Your task to perform on an android device: turn vacation reply on in the gmail app Image 0: 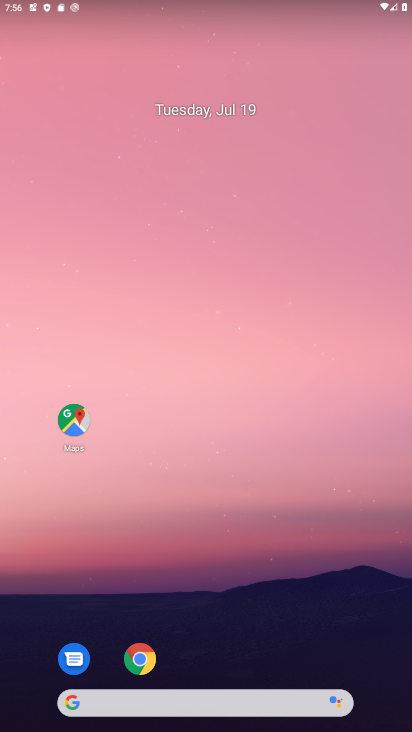
Step 0: drag from (221, 690) to (218, 274)
Your task to perform on an android device: turn vacation reply on in the gmail app Image 1: 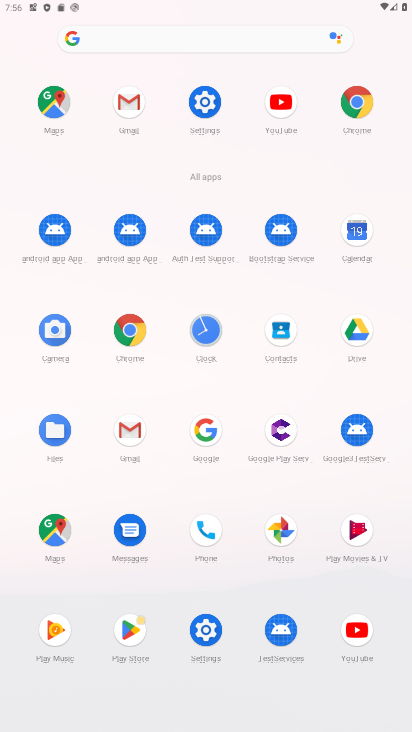
Step 1: click (135, 113)
Your task to perform on an android device: turn vacation reply on in the gmail app Image 2: 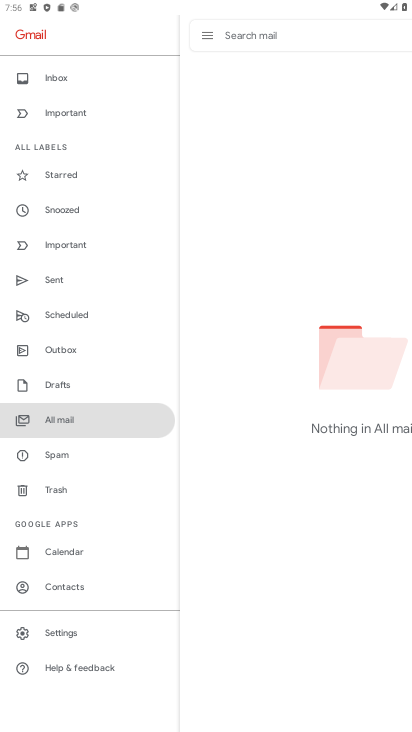
Step 2: click (56, 636)
Your task to perform on an android device: turn vacation reply on in the gmail app Image 3: 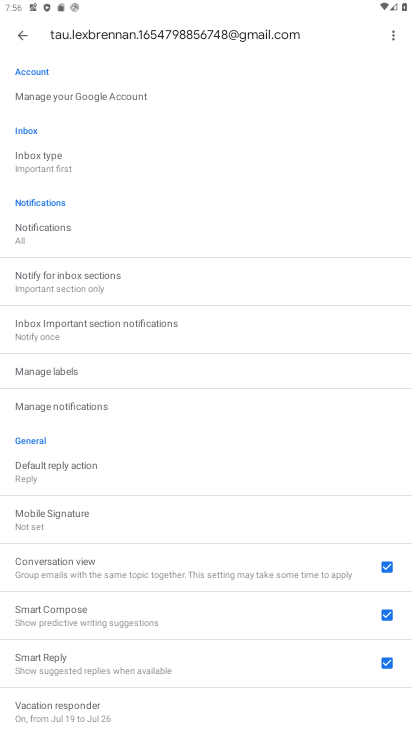
Step 3: click (62, 715)
Your task to perform on an android device: turn vacation reply on in the gmail app Image 4: 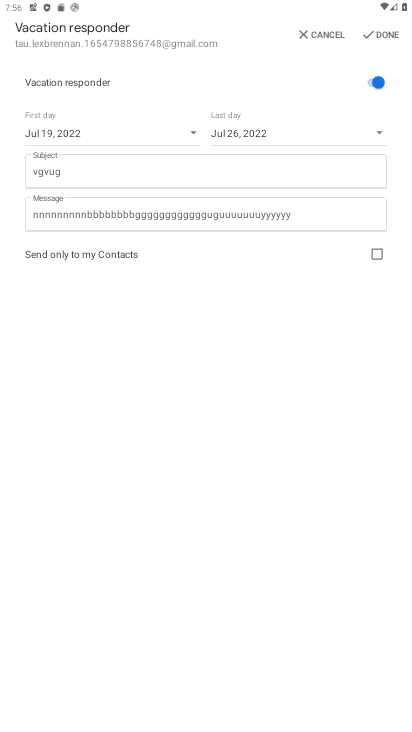
Step 4: click (370, 32)
Your task to perform on an android device: turn vacation reply on in the gmail app Image 5: 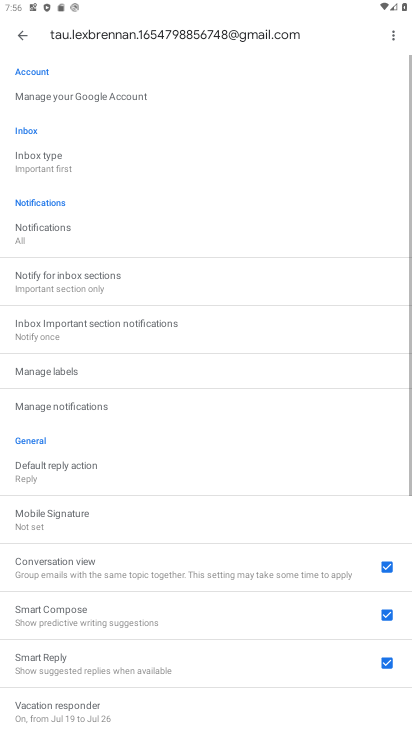
Step 5: task complete